Your task to perform on an android device: turn off data saver in the chrome app Image 0: 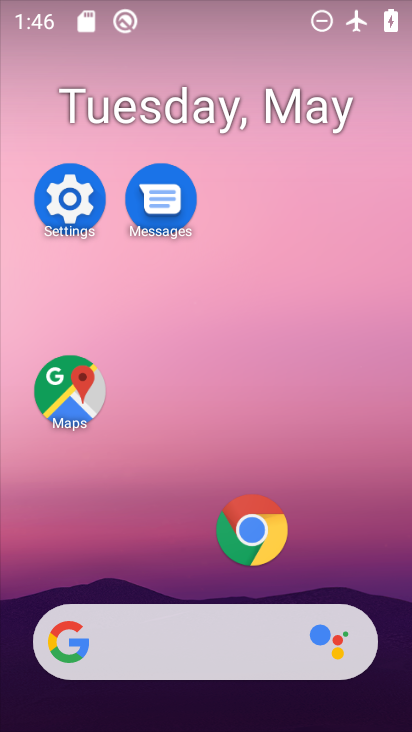
Step 0: drag from (169, 532) to (212, 135)
Your task to perform on an android device: turn off data saver in the chrome app Image 1: 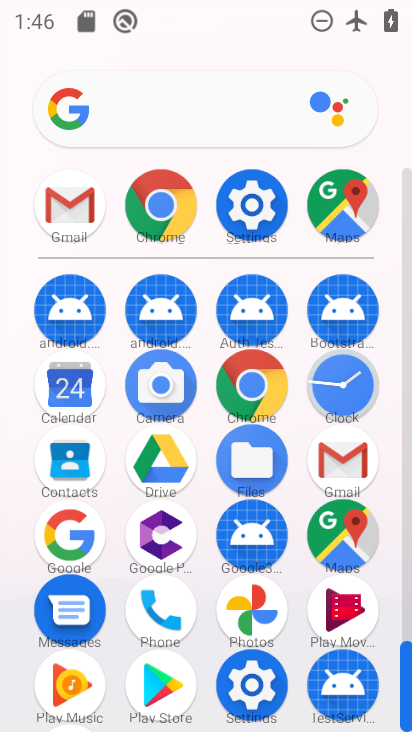
Step 1: click (255, 386)
Your task to perform on an android device: turn off data saver in the chrome app Image 2: 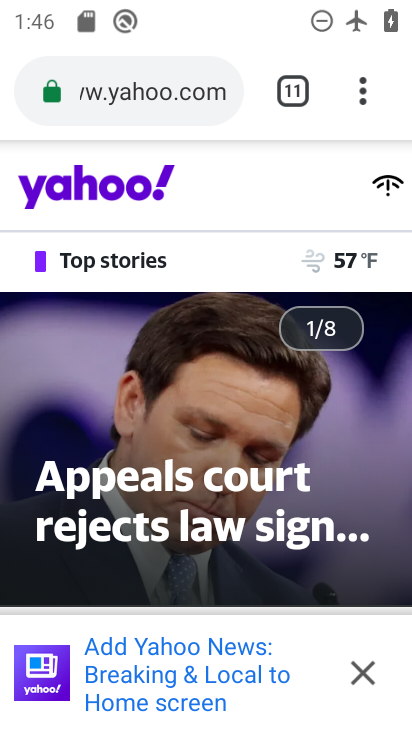
Step 2: click (358, 98)
Your task to perform on an android device: turn off data saver in the chrome app Image 3: 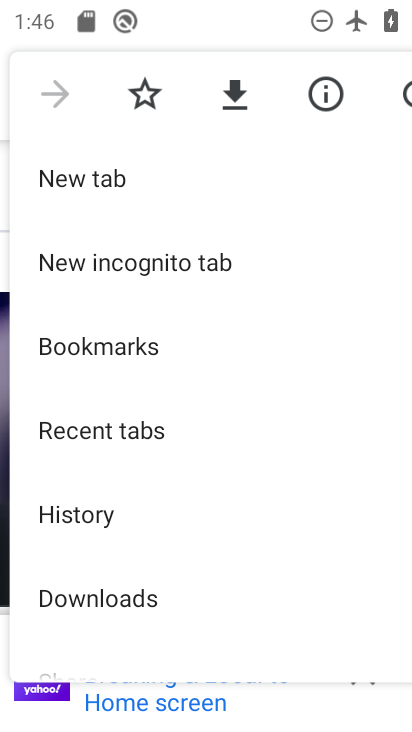
Step 3: drag from (260, 531) to (194, 245)
Your task to perform on an android device: turn off data saver in the chrome app Image 4: 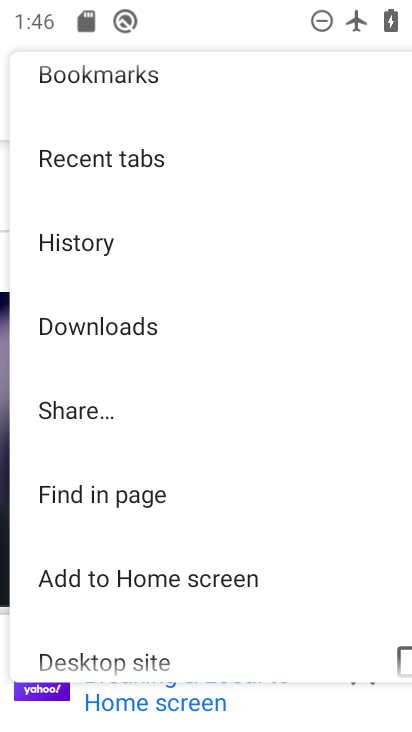
Step 4: drag from (211, 585) to (179, 212)
Your task to perform on an android device: turn off data saver in the chrome app Image 5: 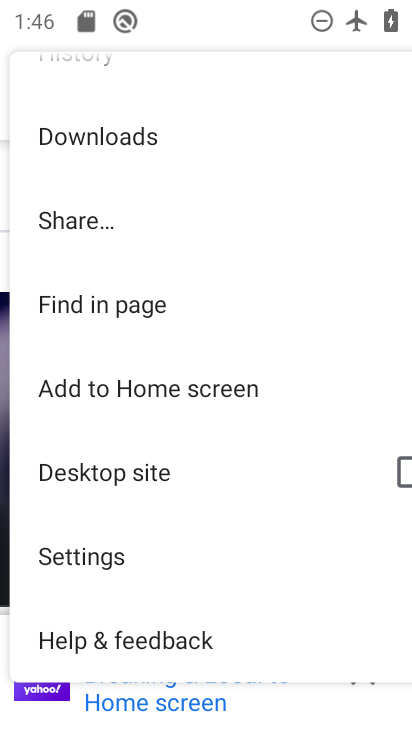
Step 5: click (133, 566)
Your task to perform on an android device: turn off data saver in the chrome app Image 6: 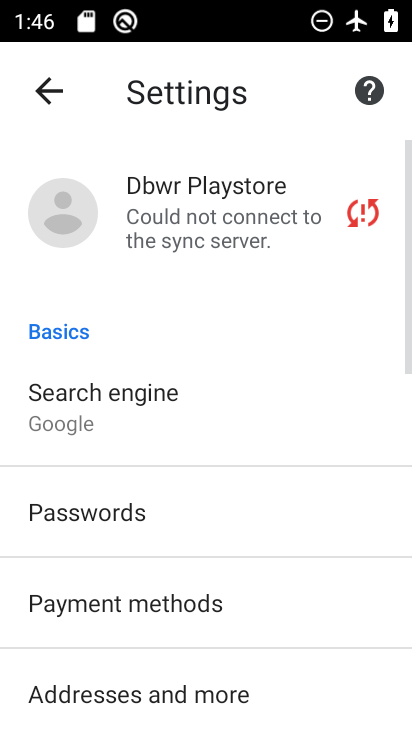
Step 6: drag from (173, 599) to (189, 181)
Your task to perform on an android device: turn off data saver in the chrome app Image 7: 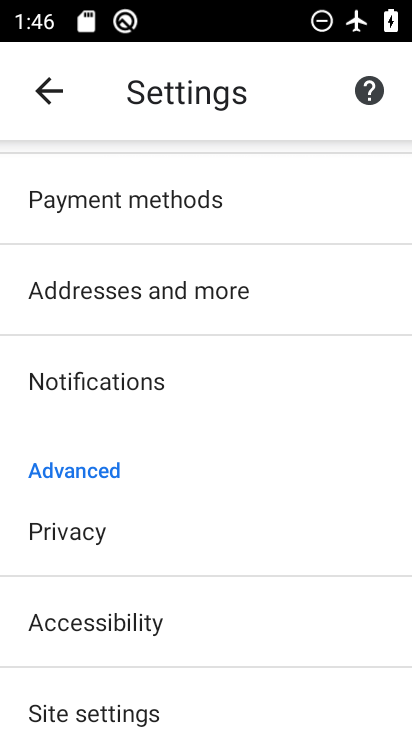
Step 7: drag from (154, 642) to (162, 261)
Your task to perform on an android device: turn off data saver in the chrome app Image 8: 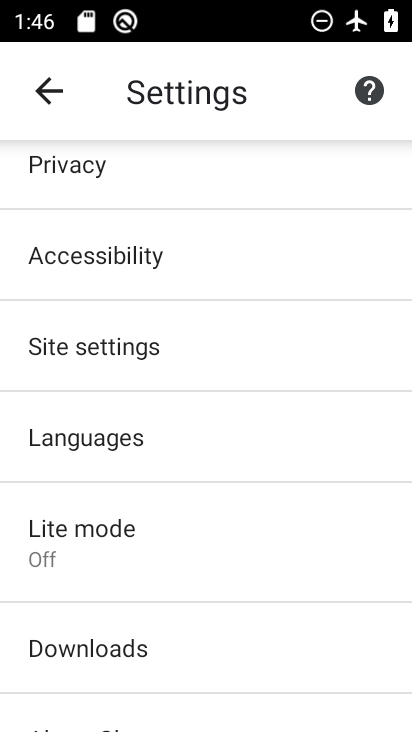
Step 8: click (126, 559)
Your task to perform on an android device: turn off data saver in the chrome app Image 9: 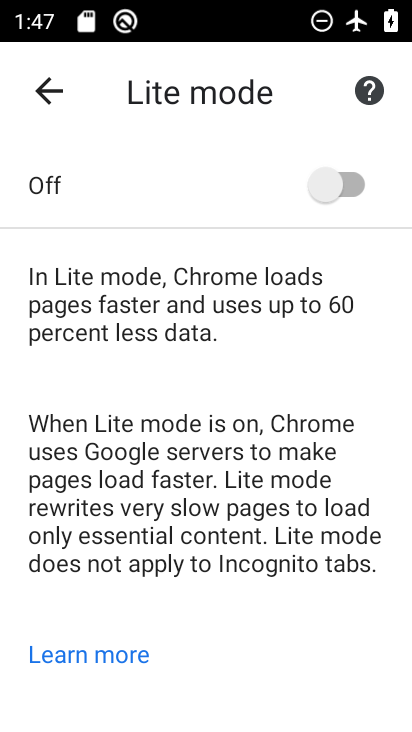
Step 9: task complete